Your task to perform on an android device: delete browsing data in the chrome app Image 0: 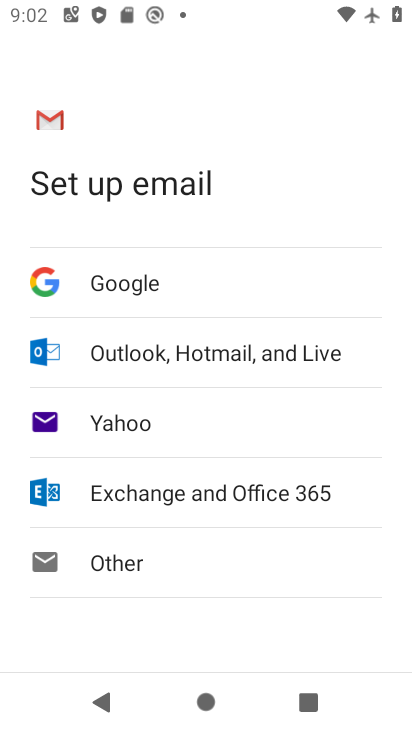
Step 0: press home button
Your task to perform on an android device: delete browsing data in the chrome app Image 1: 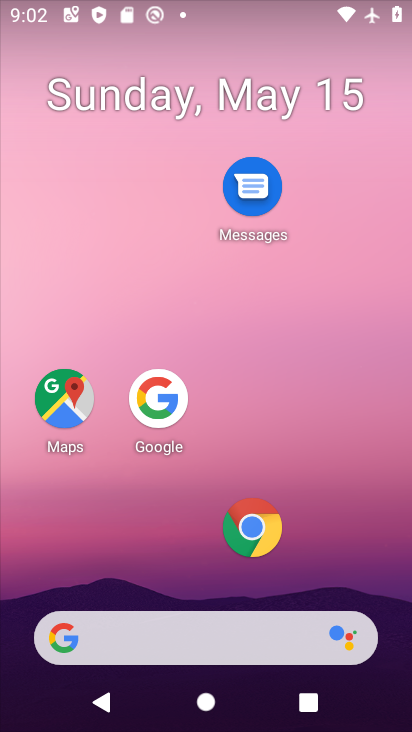
Step 1: click (252, 534)
Your task to perform on an android device: delete browsing data in the chrome app Image 2: 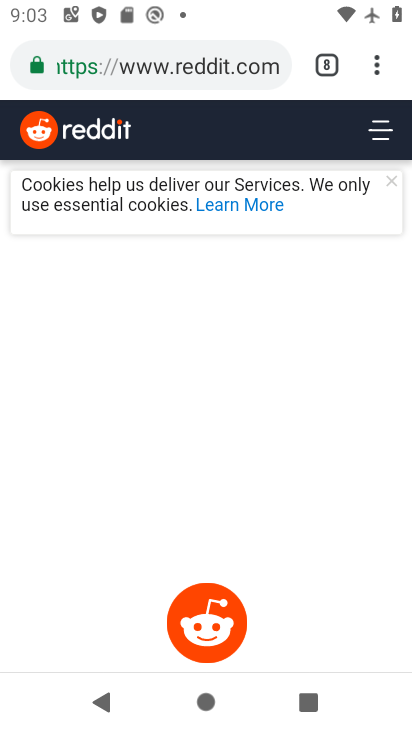
Step 2: drag from (377, 71) to (228, 568)
Your task to perform on an android device: delete browsing data in the chrome app Image 3: 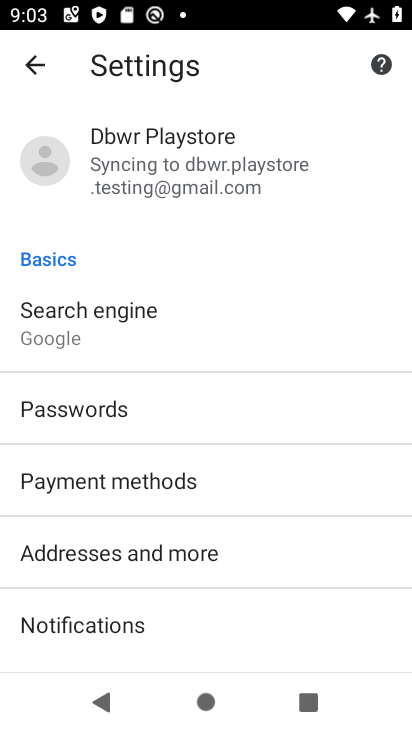
Step 3: drag from (190, 609) to (329, 209)
Your task to perform on an android device: delete browsing data in the chrome app Image 4: 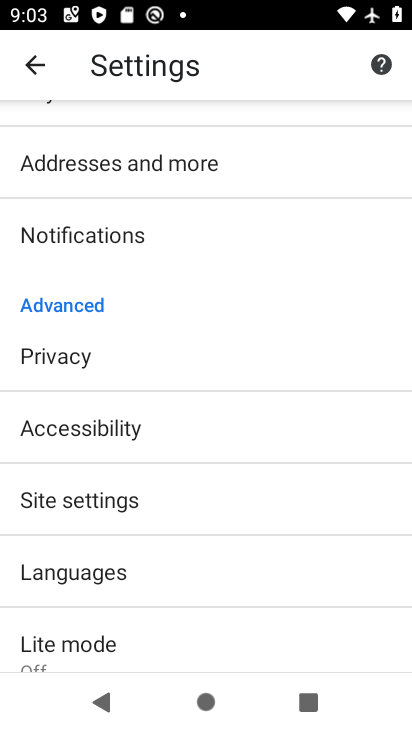
Step 4: click (63, 369)
Your task to perform on an android device: delete browsing data in the chrome app Image 5: 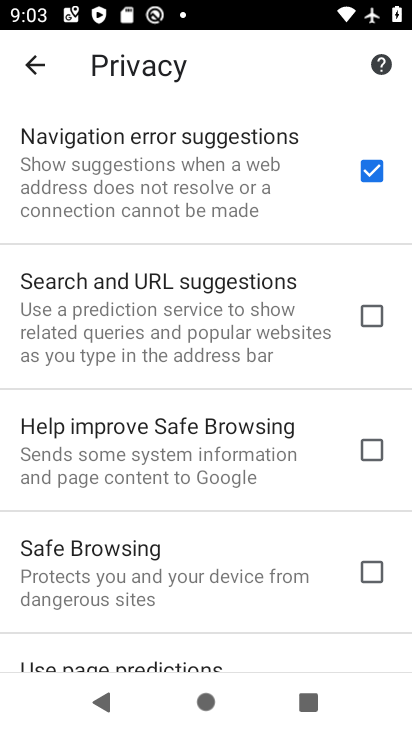
Step 5: drag from (151, 626) to (327, 157)
Your task to perform on an android device: delete browsing data in the chrome app Image 6: 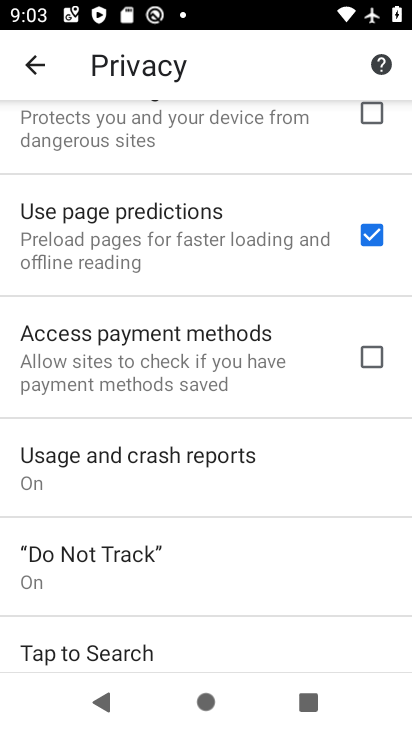
Step 6: drag from (192, 586) to (276, 276)
Your task to perform on an android device: delete browsing data in the chrome app Image 7: 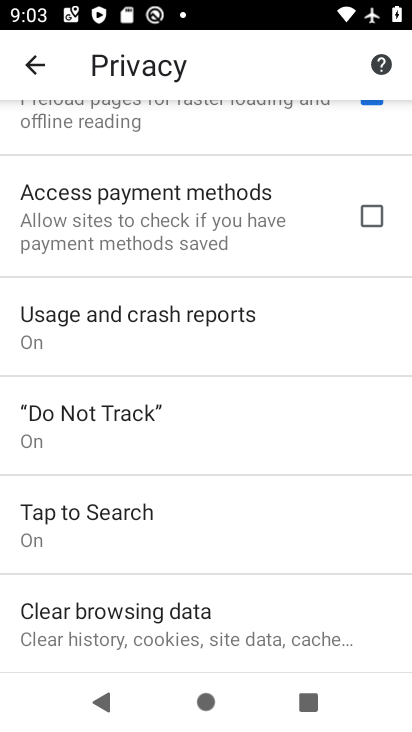
Step 7: click (153, 635)
Your task to perform on an android device: delete browsing data in the chrome app Image 8: 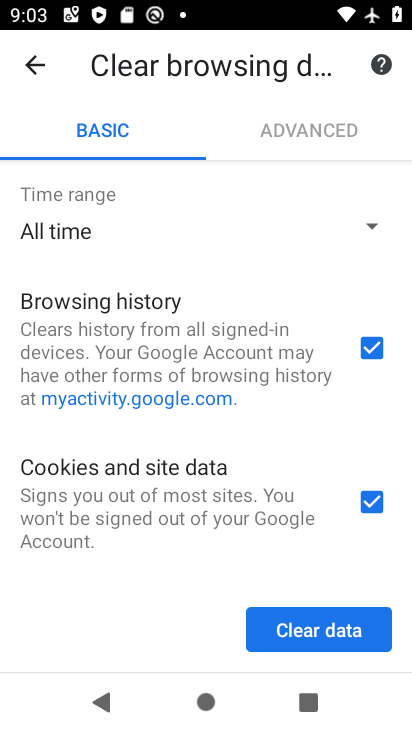
Step 8: click (361, 499)
Your task to perform on an android device: delete browsing data in the chrome app Image 9: 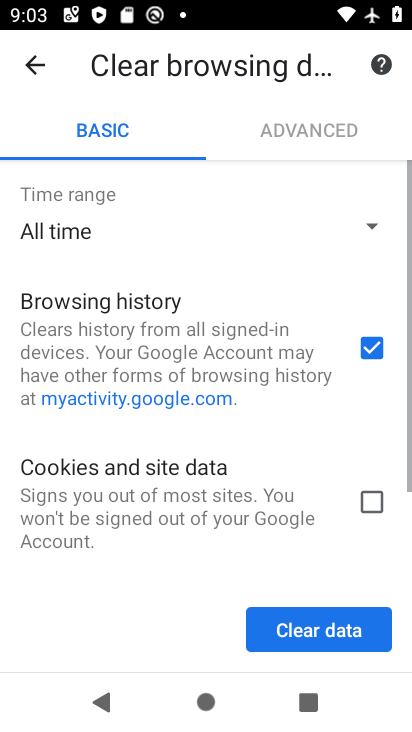
Step 9: drag from (97, 583) to (211, 308)
Your task to perform on an android device: delete browsing data in the chrome app Image 10: 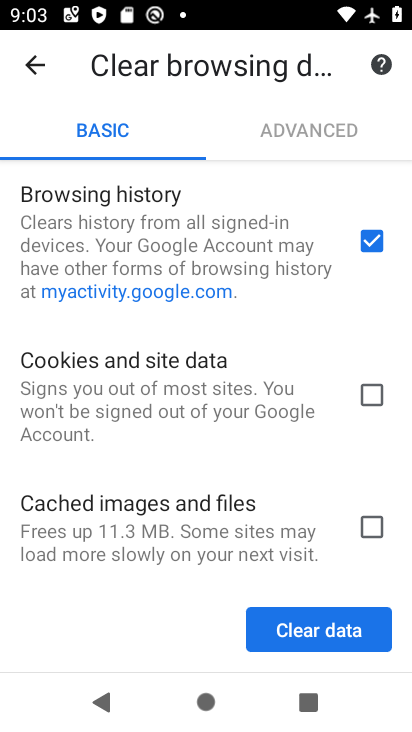
Step 10: click (307, 627)
Your task to perform on an android device: delete browsing data in the chrome app Image 11: 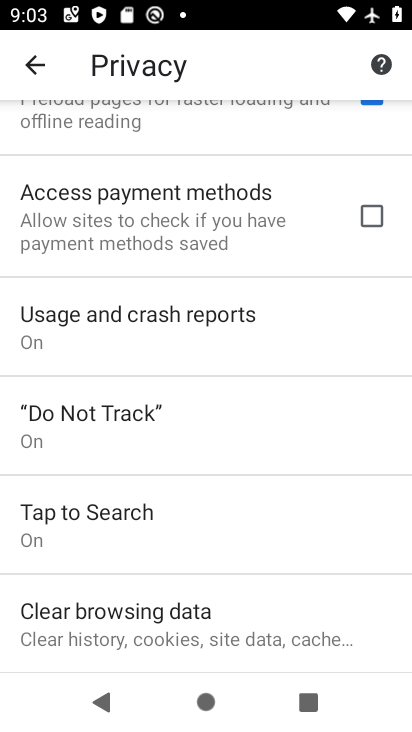
Step 11: task complete